Your task to perform on an android device: When is my next appointment? Image 0: 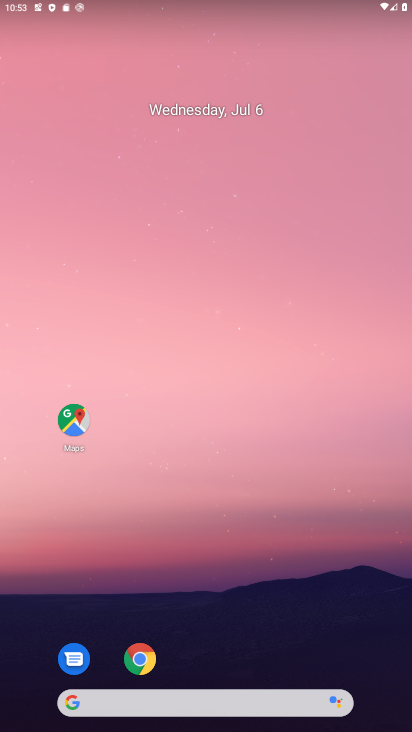
Step 0: drag from (253, 591) to (169, 181)
Your task to perform on an android device: When is my next appointment? Image 1: 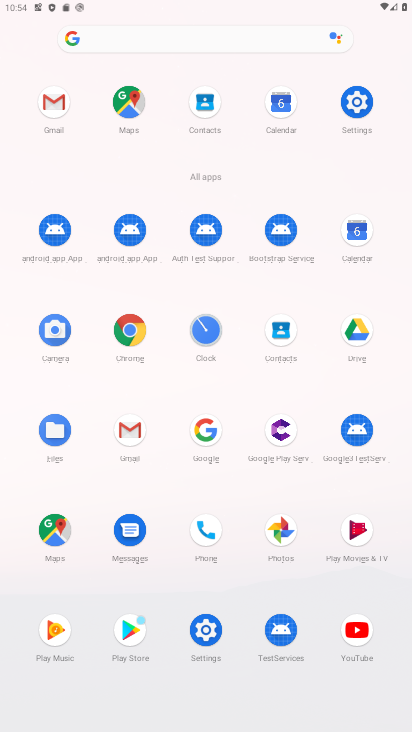
Step 1: click (358, 234)
Your task to perform on an android device: When is my next appointment? Image 2: 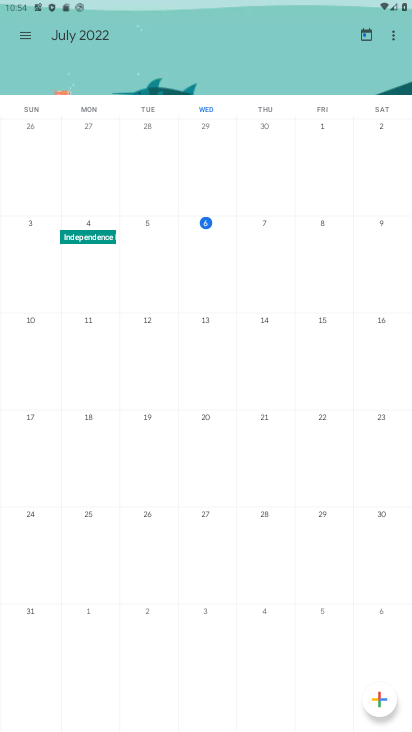
Step 2: click (201, 227)
Your task to perform on an android device: When is my next appointment? Image 3: 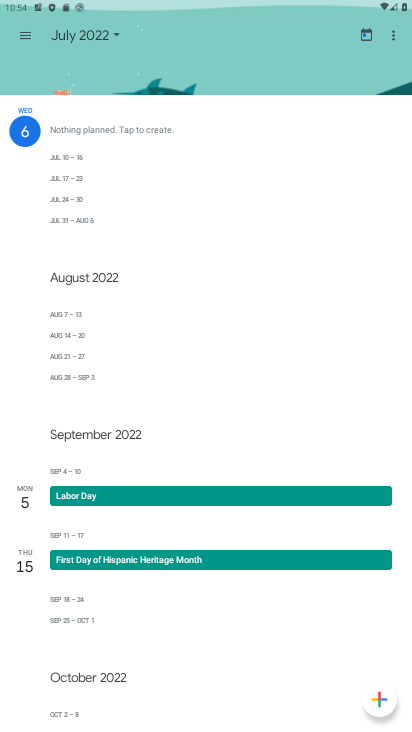
Step 3: task complete